Your task to perform on an android device: check google app version Image 0: 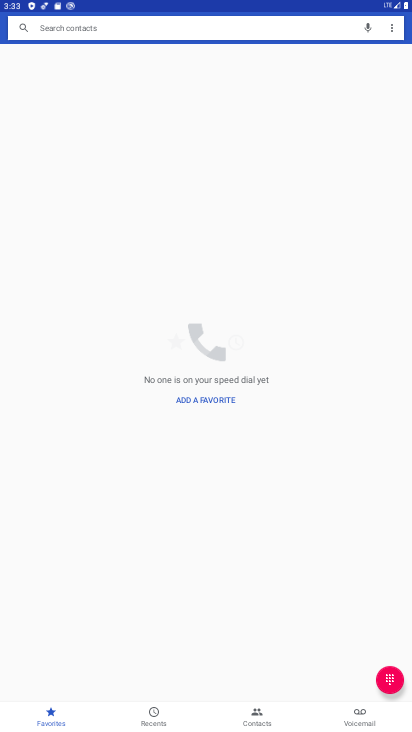
Step 0: press home button
Your task to perform on an android device: check google app version Image 1: 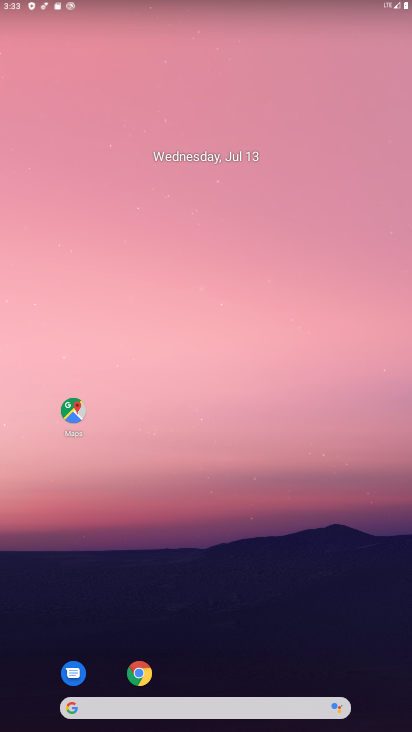
Step 1: drag from (190, 708) to (216, 181)
Your task to perform on an android device: check google app version Image 2: 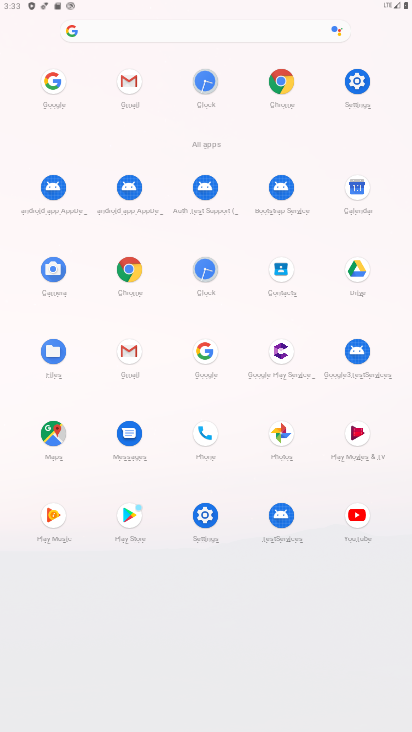
Step 2: click (201, 349)
Your task to perform on an android device: check google app version Image 3: 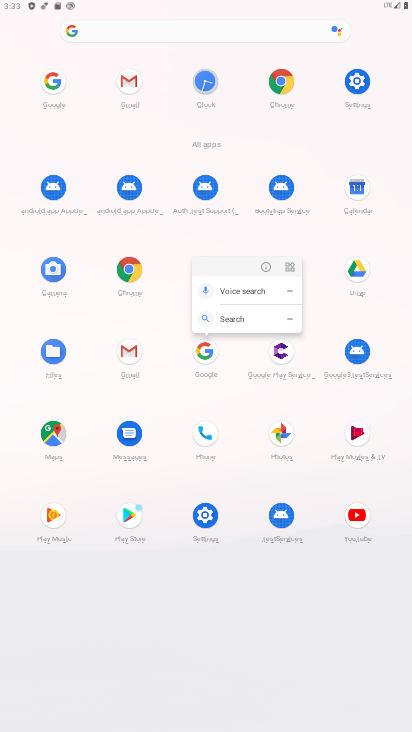
Step 3: click (268, 267)
Your task to perform on an android device: check google app version Image 4: 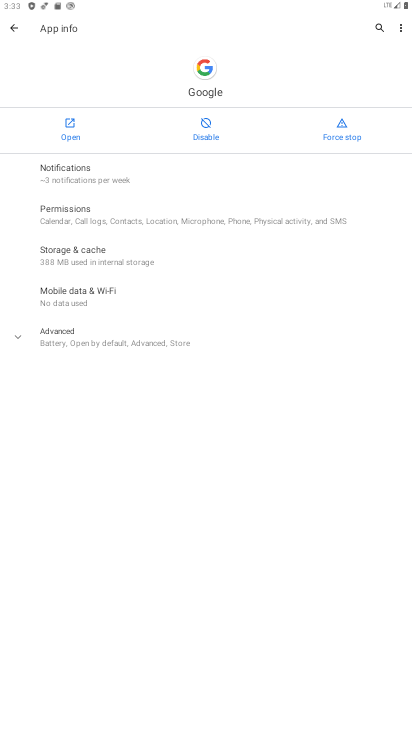
Step 4: click (118, 340)
Your task to perform on an android device: check google app version Image 5: 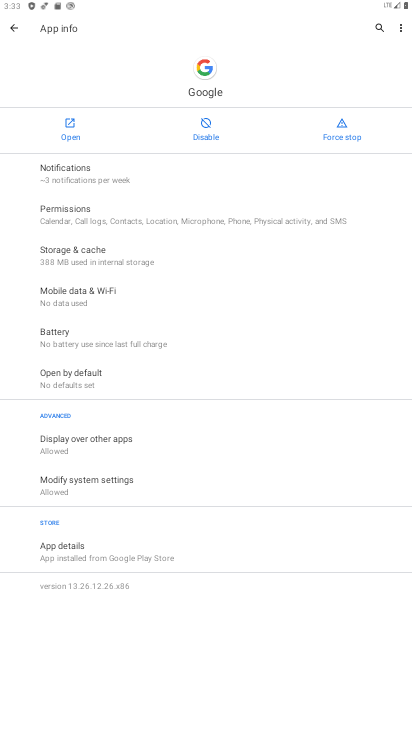
Step 5: task complete